Your task to perform on an android device: Open calendar and show me the fourth week of next month Image 0: 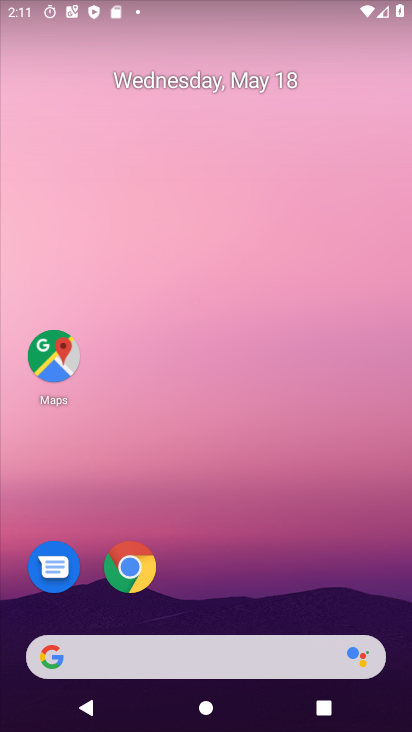
Step 0: drag from (216, 600) to (234, 51)
Your task to perform on an android device: Open calendar and show me the fourth week of next month Image 1: 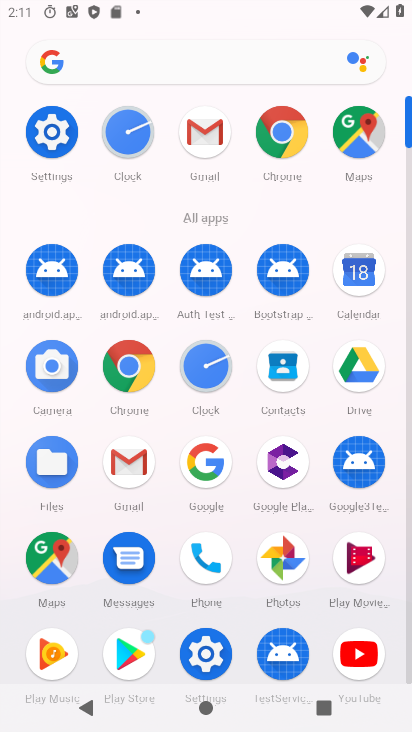
Step 1: click (347, 279)
Your task to perform on an android device: Open calendar and show me the fourth week of next month Image 2: 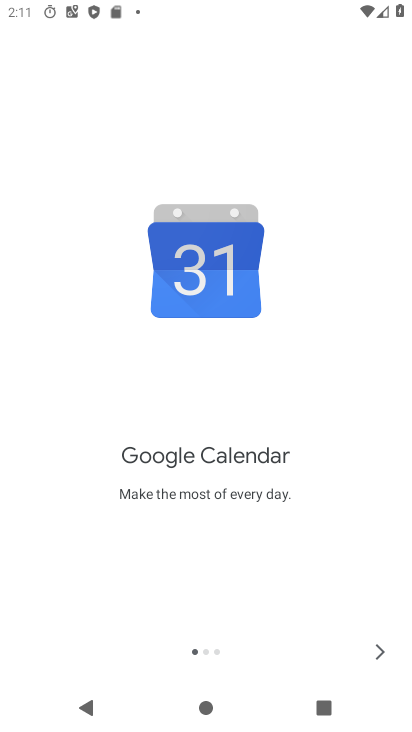
Step 2: click (380, 653)
Your task to perform on an android device: Open calendar and show me the fourth week of next month Image 3: 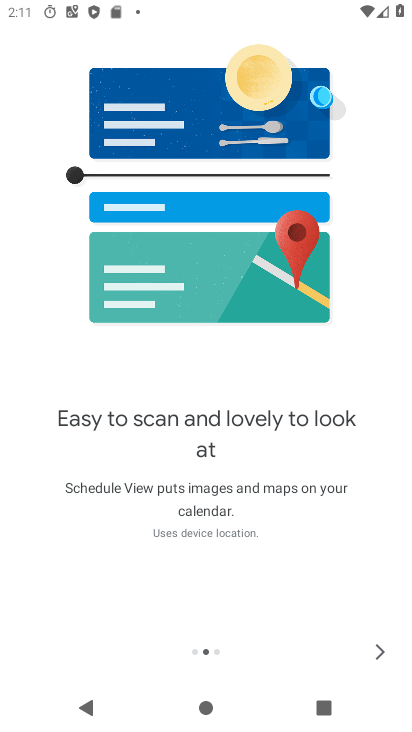
Step 3: click (382, 647)
Your task to perform on an android device: Open calendar and show me the fourth week of next month Image 4: 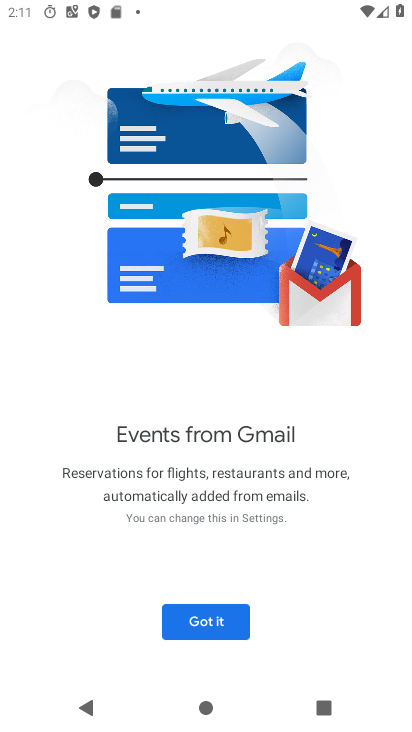
Step 4: click (215, 616)
Your task to perform on an android device: Open calendar and show me the fourth week of next month Image 5: 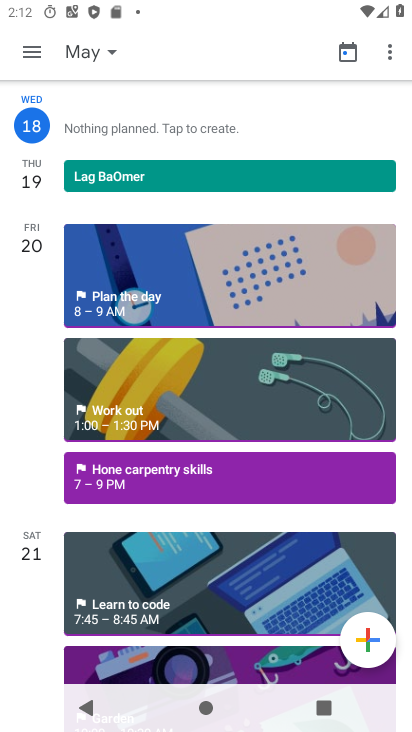
Step 5: click (34, 59)
Your task to perform on an android device: Open calendar and show me the fourth week of next month Image 6: 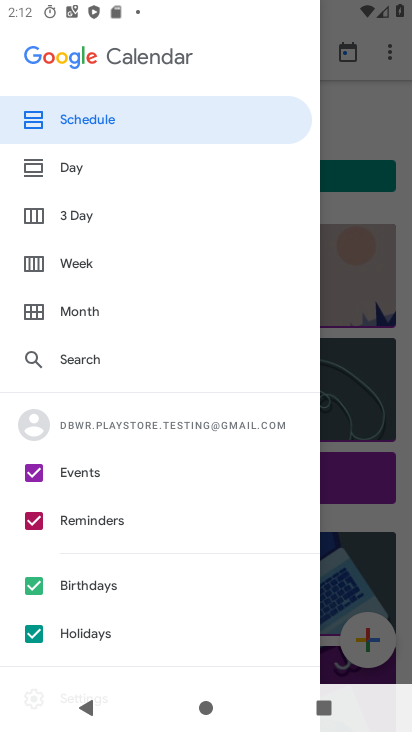
Step 6: click (76, 268)
Your task to perform on an android device: Open calendar and show me the fourth week of next month Image 7: 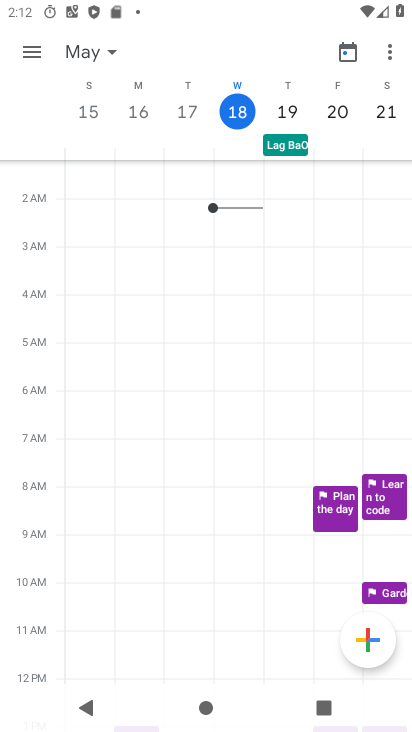
Step 7: task complete